Your task to perform on an android device: allow cookies in the chrome app Image 0: 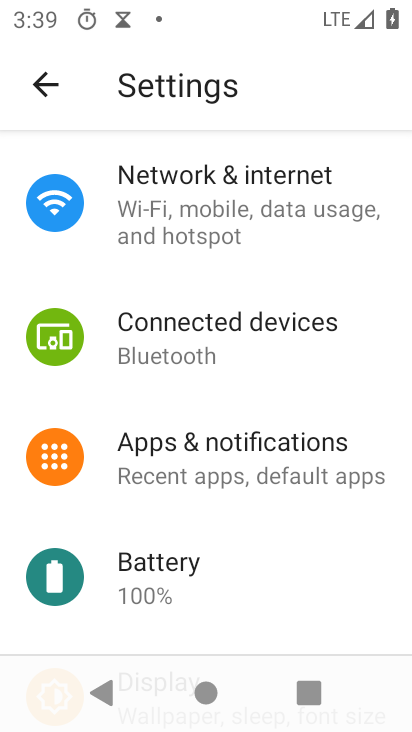
Step 0: press home button
Your task to perform on an android device: allow cookies in the chrome app Image 1: 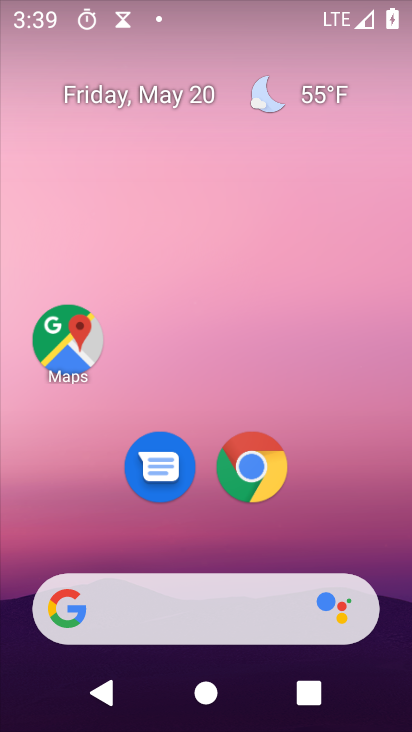
Step 1: click (249, 468)
Your task to perform on an android device: allow cookies in the chrome app Image 2: 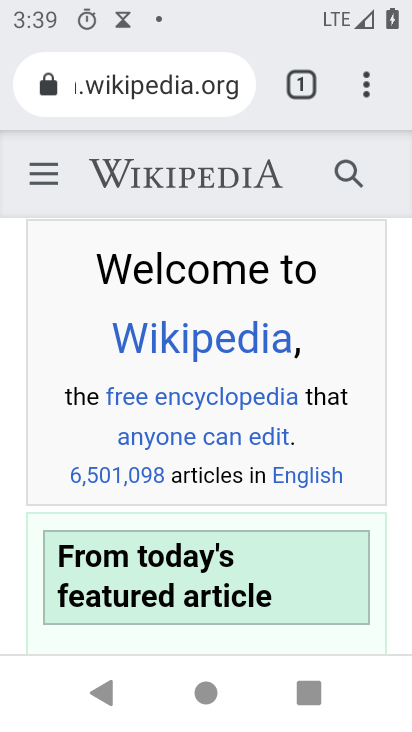
Step 2: click (371, 93)
Your task to perform on an android device: allow cookies in the chrome app Image 3: 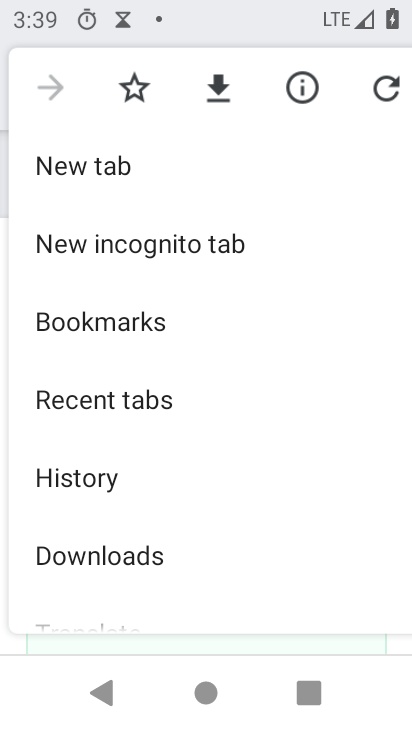
Step 3: drag from (136, 532) to (162, 296)
Your task to perform on an android device: allow cookies in the chrome app Image 4: 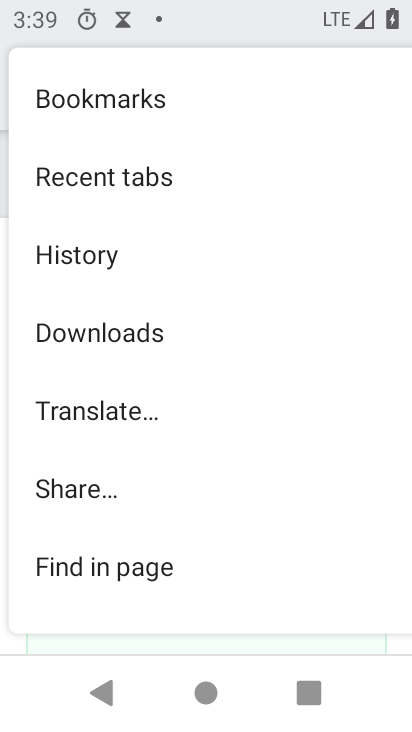
Step 4: drag from (196, 518) to (194, 299)
Your task to perform on an android device: allow cookies in the chrome app Image 5: 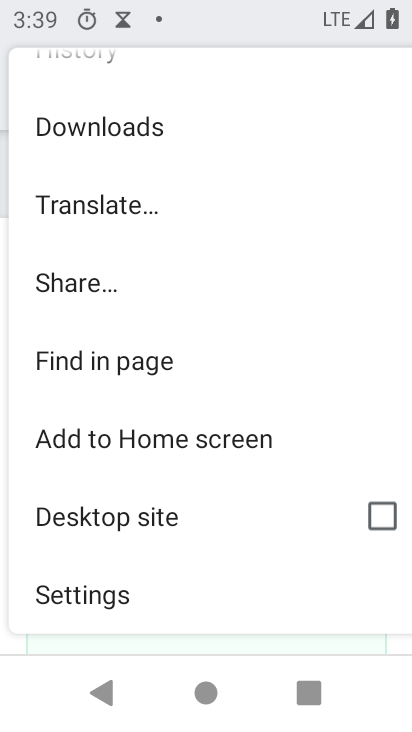
Step 5: click (144, 603)
Your task to perform on an android device: allow cookies in the chrome app Image 6: 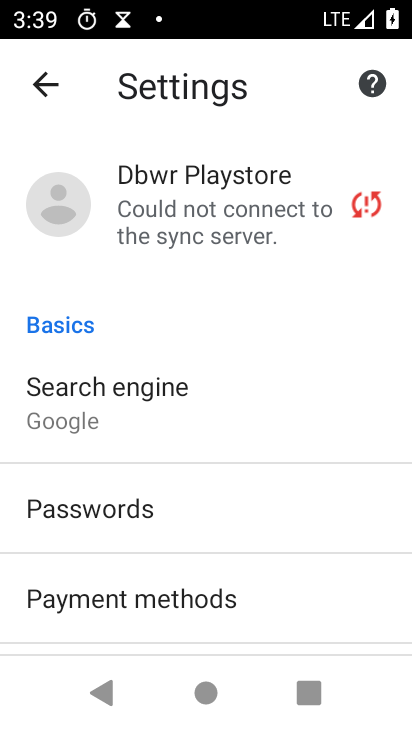
Step 6: drag from (167, 568) to (153, 208)
Your task to perform on an android device: allow cookies in the chrome app Image 7: 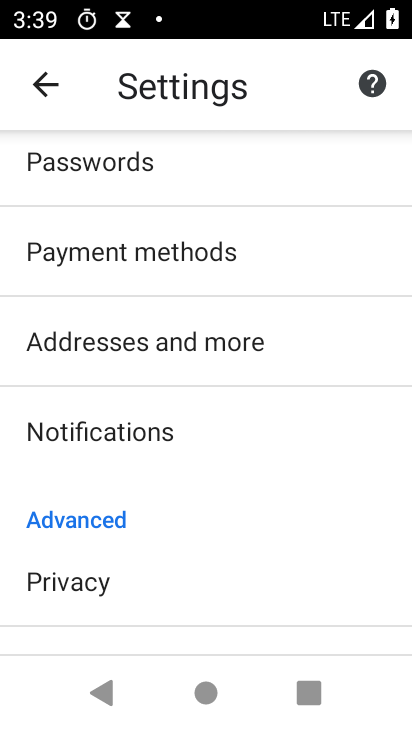
Step 7: drag from (139, 552) to (132, 265)
Your task to perform on an android device: allow cookies in the chrome app Image 8: 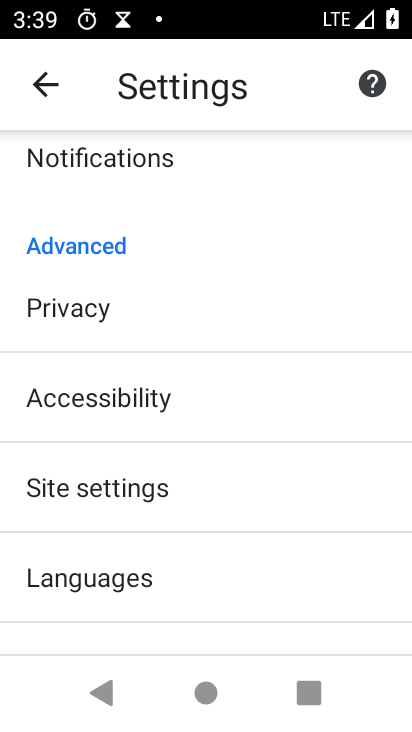
Step 8: click (145, 490)
Your task to perform on an android device: allow cookies in the chrome app Image 9: 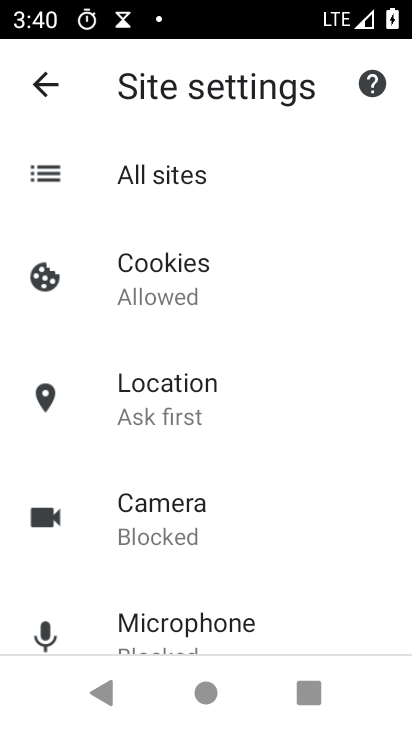
Step 9: click (133, 268)
Your task to perform on an android device: allow cookies in the chrome app Image 10: 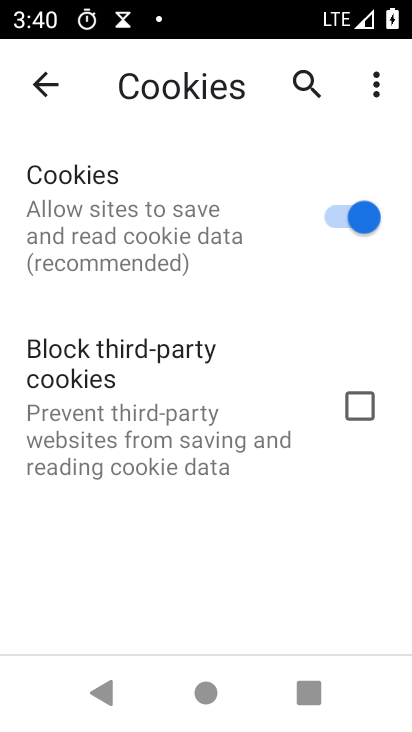
Step 10: task complete